Your task to perform on an android device: turn vacation reply on in the gmail app Image 0: 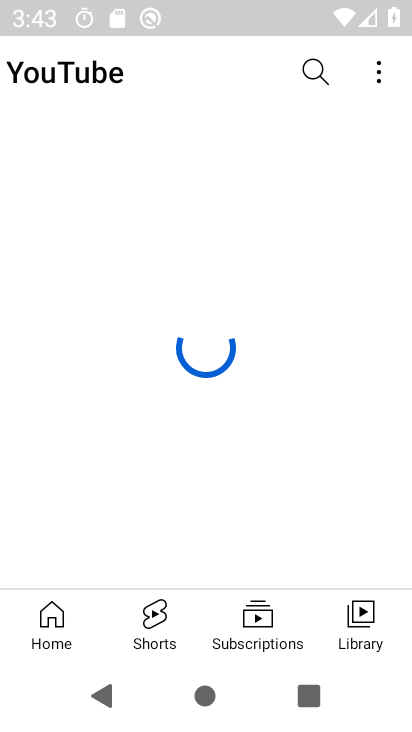
Step 0: press home button
Your task to perform on an android device: turn vacation reply on in the gmail app Image 1: 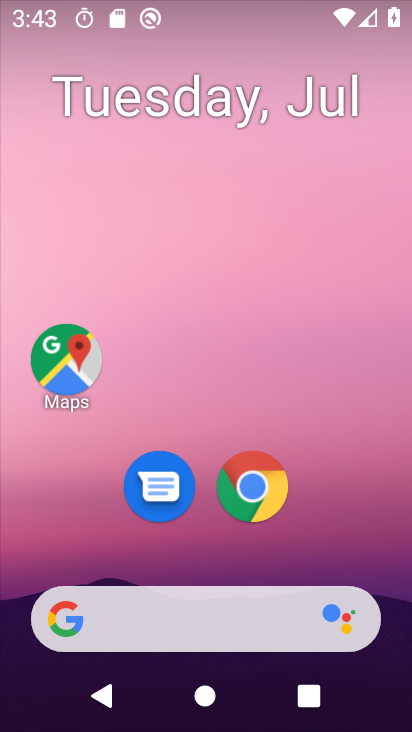
Step 1: drag from (342, 526) to (339, 142)
Your task to perform on an android device: turn vacation reply on in the gmail app Image 2: 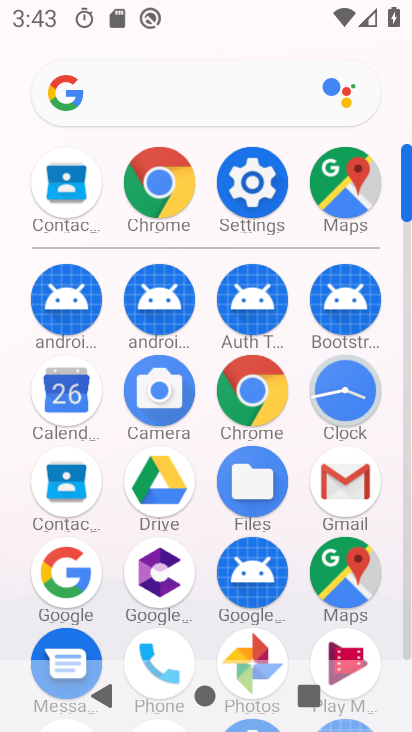
Step 2: click (354, 487)
Your task to perform on an android device: turn vacation reply on in the gmail app Image 3: 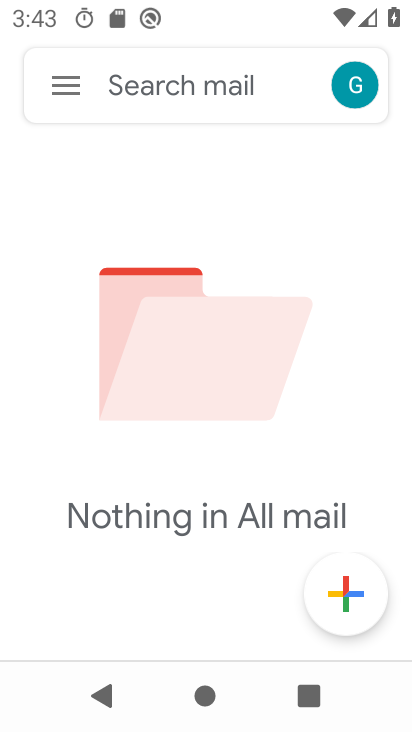
Step 3: click (69, 85)
Your task to perform on an android device: turn vacation reply on in the gmail app Image 4: 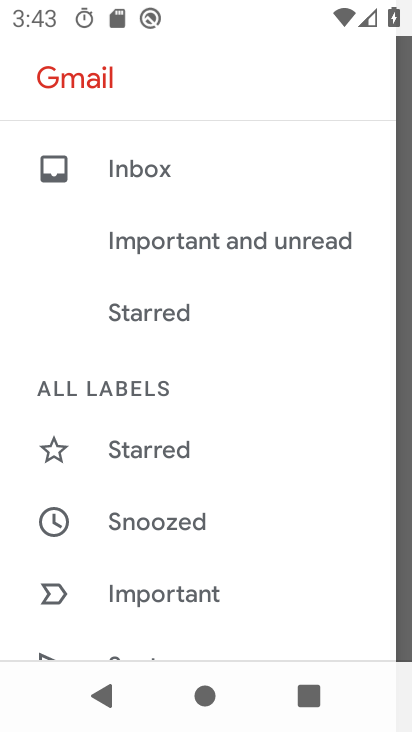
Step 4: drag from (305, 476) to (285, 312)
Your task to perform on an android device: turn vacation reply on in the gmail app Image 5: 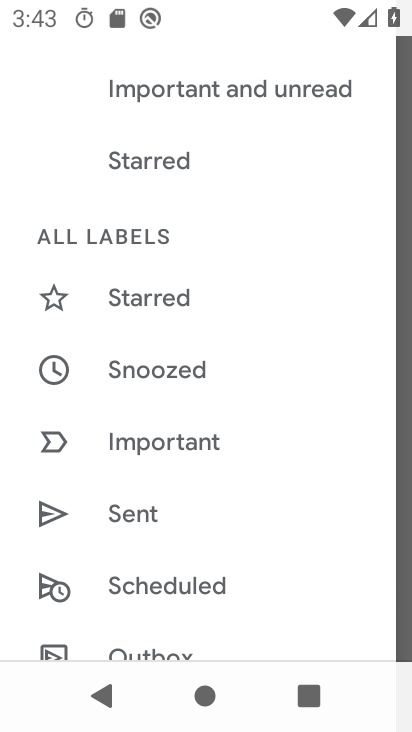
Step 5: drag from (285, 488) to (278, 297)
Your task to perform on an android device: turn vacation reply on in the gmail app Image 6: 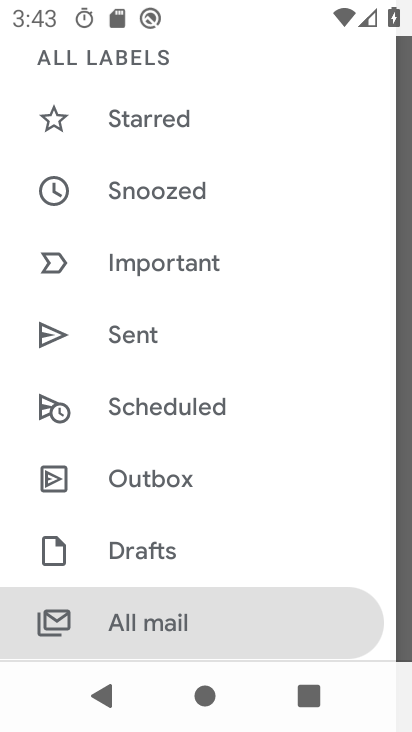
Step 6: drag from (282, 474) to (287, 340)
Your task to perform on an android device: turn vacation reply on in the gmail app Image 7: 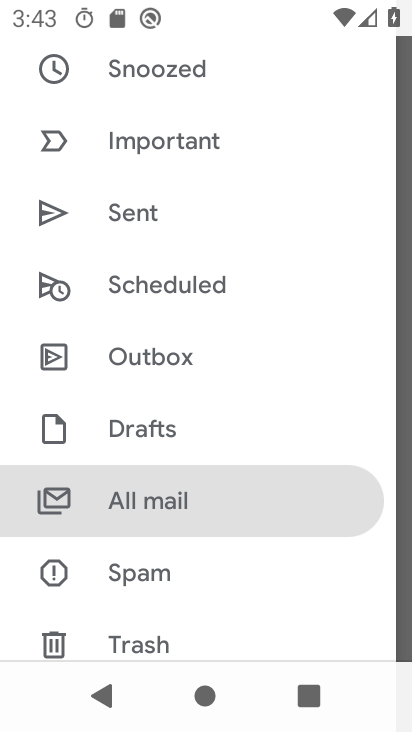
Step 7: drag from (282, 569) to (267, 288)
Your task to perform on an android device: turn vacation reply on in the gmail app Image 8: 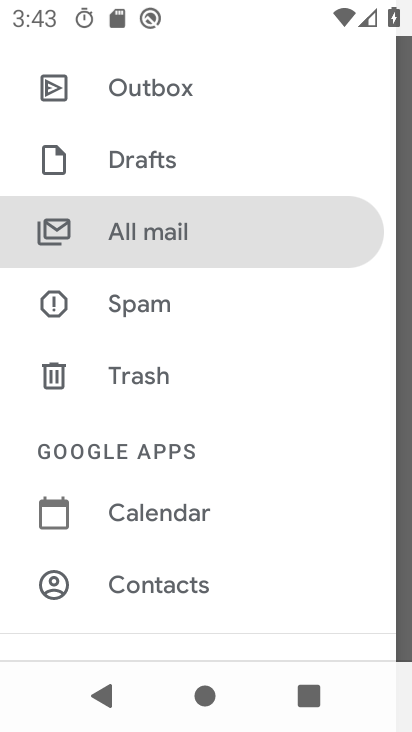
Step 8: drag from (263, 544) to (266, 347)
Your task to perform on an android device: turn vacation reply on in the gmail app Image 9: 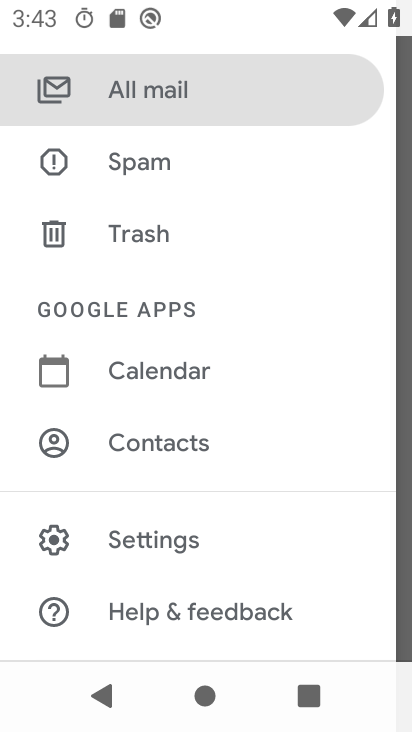
Step 9: click (210, 541)
Your task to perform on an android device: turn vacation reply on in the gmail app Image 10: 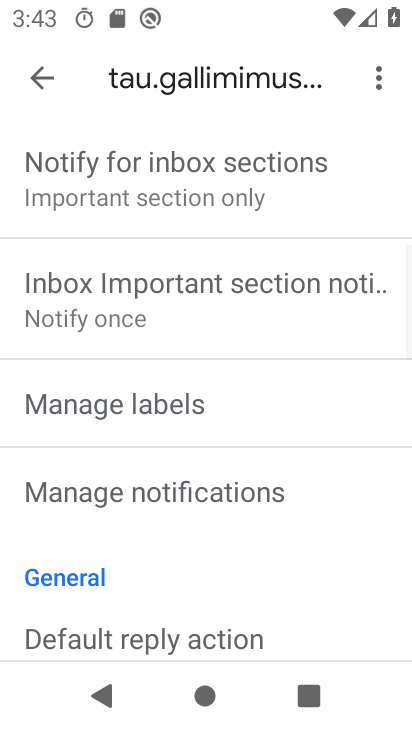
Step 10: drag from (308, 508) to (312, 456)
Your task to perform on an android device: turn vacation reply on in the gmail app Image 11: 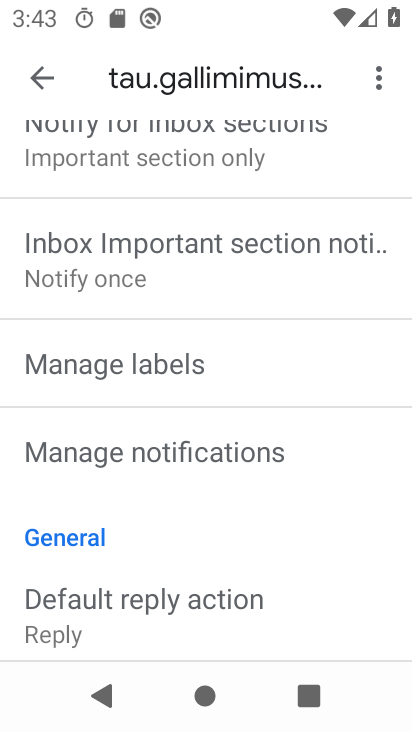
Step 11: drag from (307, 590) to (306, 445)
Your task to perform on an android device: turn vacation reply on in the gmail app Image 12: 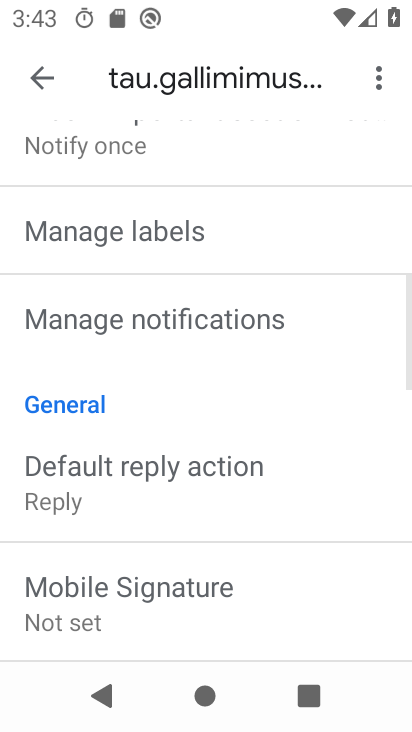
Step 12: drag from (312, 584) to (315, 424)
Your task to perform on an android device: turn vacation reply on in the gmail app Image 13: 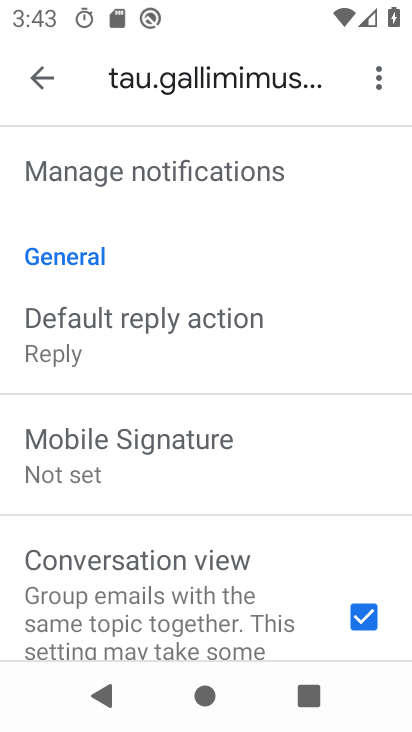
Step 13: drag from (307, 567) to (301, 416)
Your task to perform on an android device: turn vacation reply on in the gmail app Image 14: 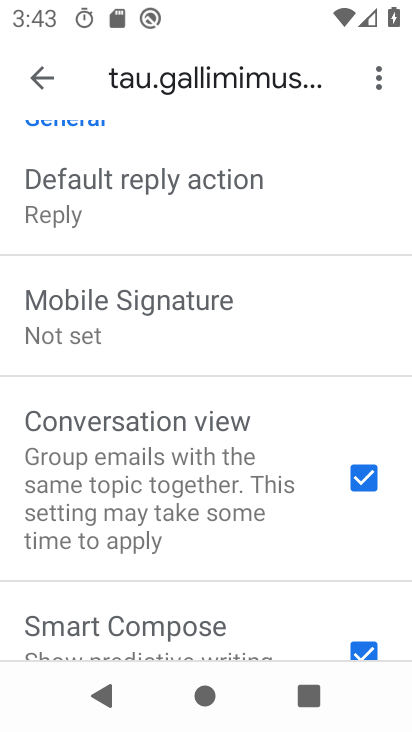
Step 14: drag from (291, 594) to (281, 434)
Your task to perform on an android device: turn vacation reply on in the gmail app Image 15: 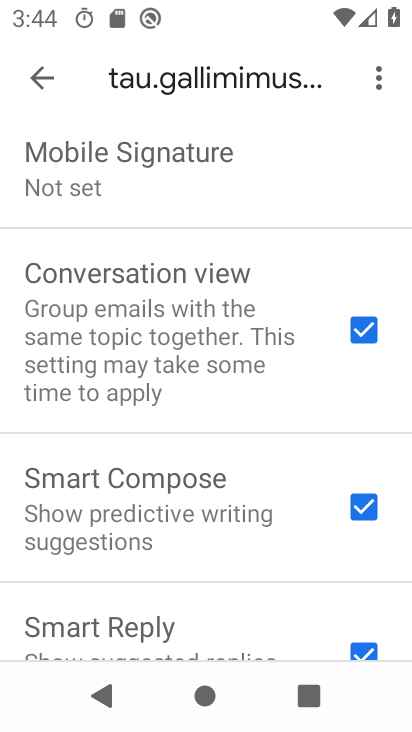
Step 15: drag from (249, 602) to (253, 432)
Your task to perform on an android device: turn vacation reply on in the gmail app Image 16: 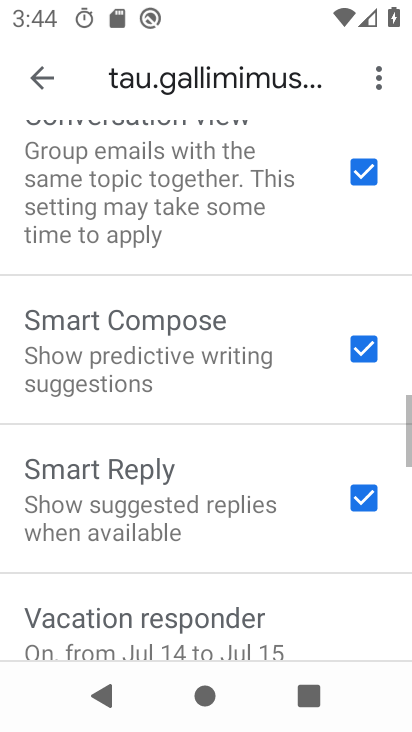
Step 16: drag from (239, 575) to (233, 388)
Your task to perform on an android device: turn vacation reply on in the gmail app Image 17: 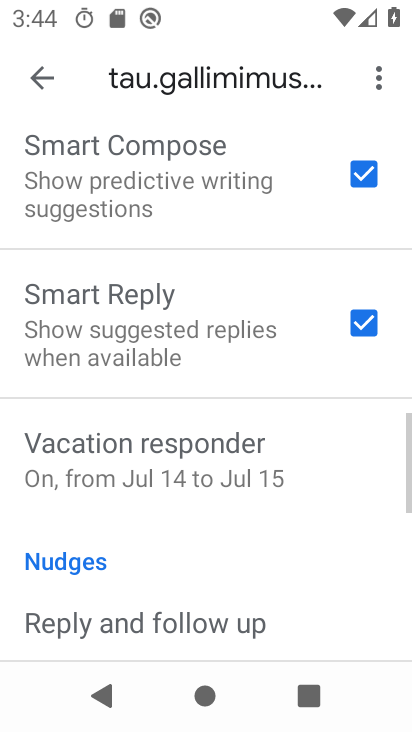
Step 17: click (237, 483)
Your task to perform on an android device: turn vacation reply on in the gmail app Image 18: 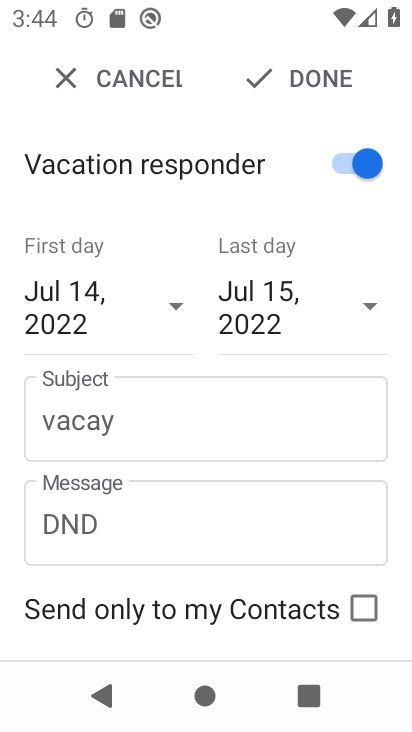
Step 18: click (237, 494)
Your task to perform on an android device: turn vacation reply on in the gmail app Image 19: 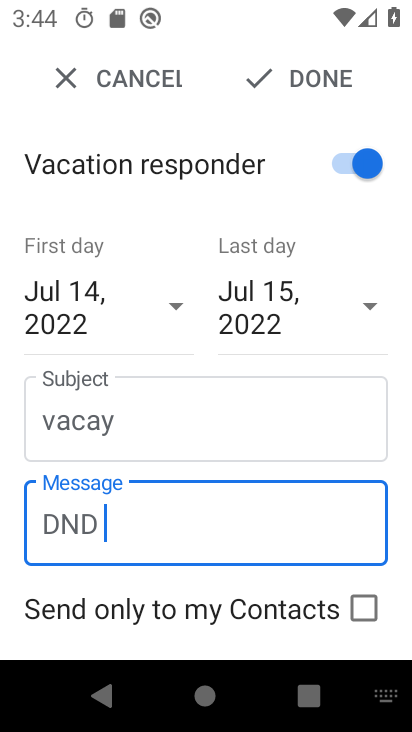
Step 19: task complete